Your task to perform on an android device: Open battery settings Image 0: 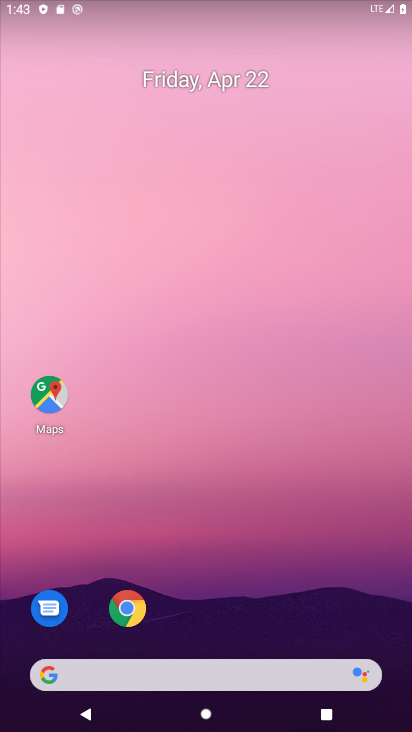
Step 0: drag from (292, 667) to (332, 128)
Your task to perform on an android device: Open battery settings Image 1: 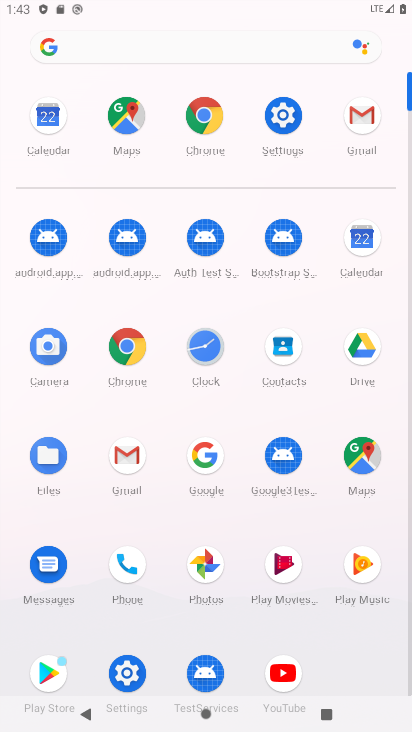
Step 1: click (289, 106)
Your task to perform on an android device: Open battery settings Image 2: 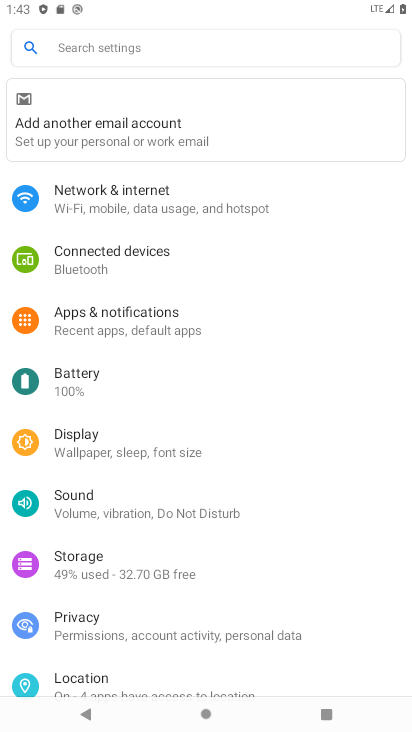
Step 2: click (115, 384)
Your task to perform on an android device: Open battery settings Image 3: 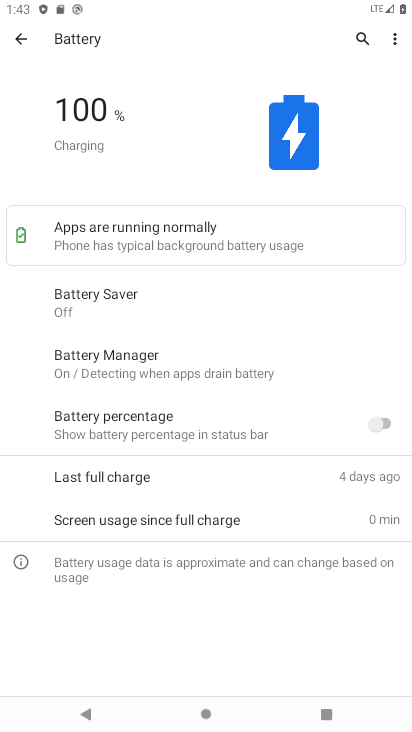
Step 3: task complete